Your task to perform on an android device: Go to network settings Image 0: 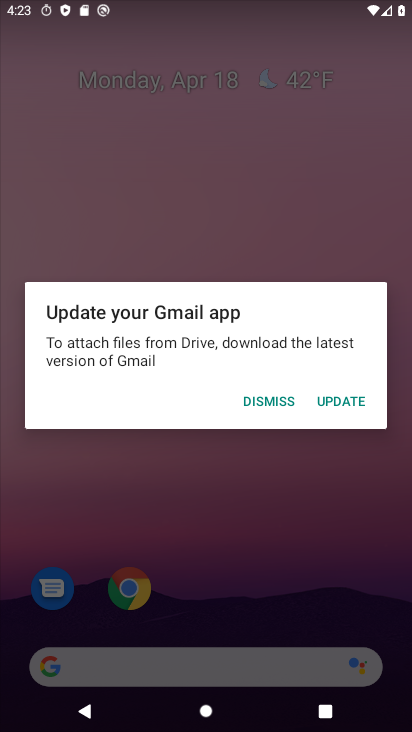
Step 0: press home button
Your task to perform on an android device: Go to network settings Image 1: 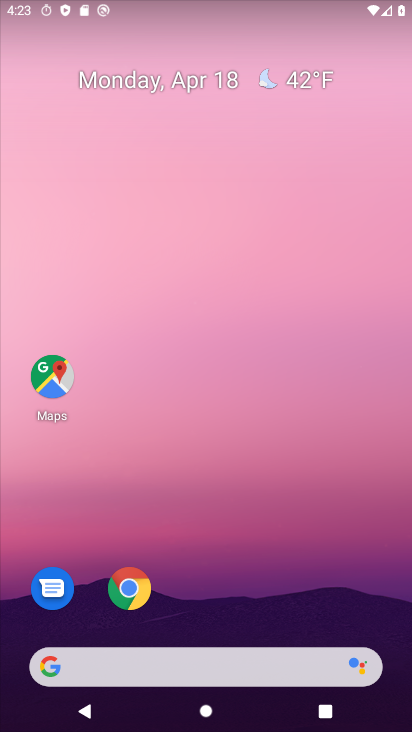
Step 1: drag from (256, 8) to (196, 624)
Your task to perform on an android device: Go to network settings Image 2: 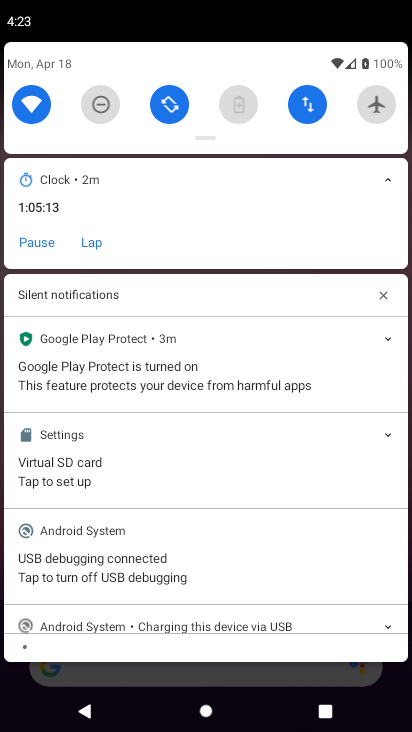
Step 2: drag from (208, 89) to (236, 675)
Your task to perform on an android device: Go to network settings Image 3: 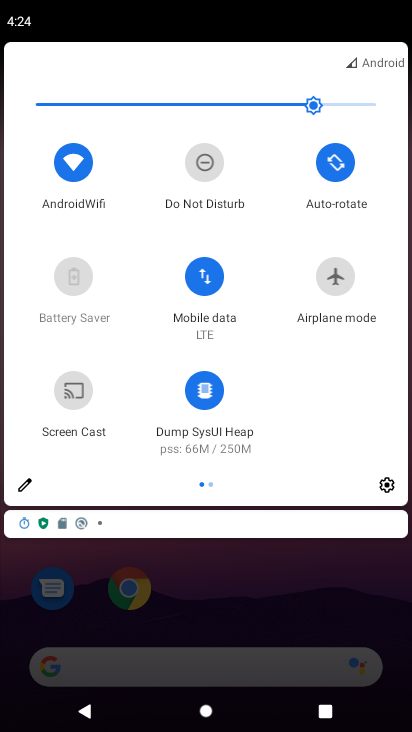
Step 3: click (387, 486)
Your task to perform on an android device: Go to network settings Image 4: 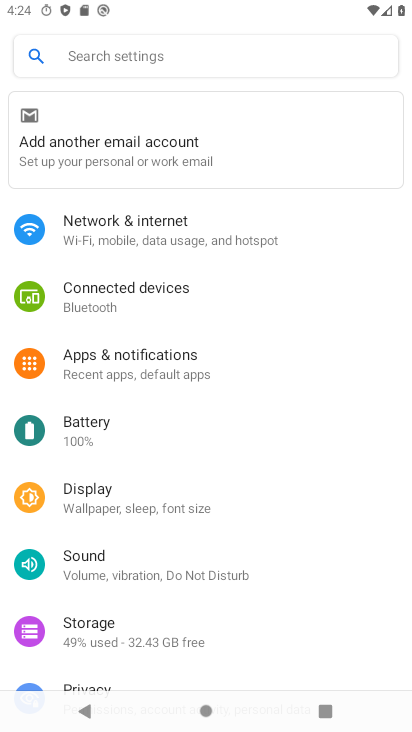
Step 4: click (158, 224)
Your task to perform on an android device: Go to network settings Image 5: 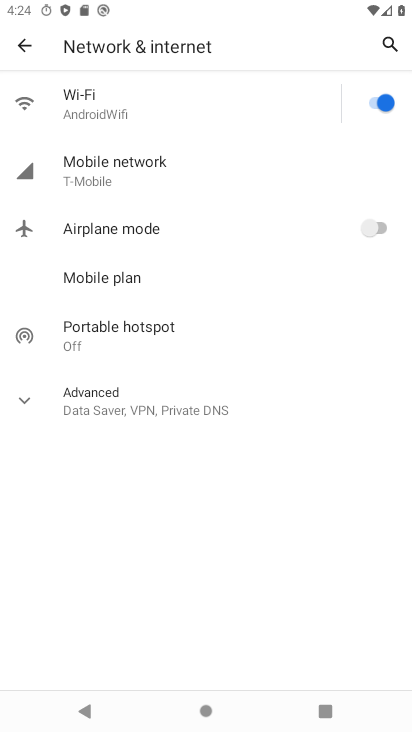
Step 5: click (136, 191)
Your task to perform on an android device: Go to network settings Image 6: 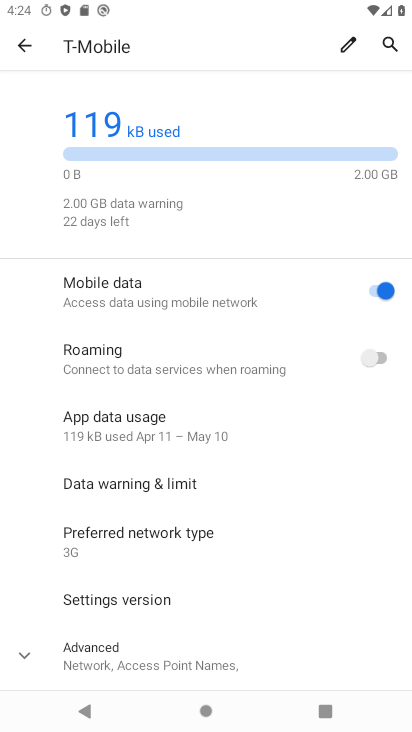
Step 6: task complete